Your task to perform on an android device: stop showing notifications on the lock screen Image 0: 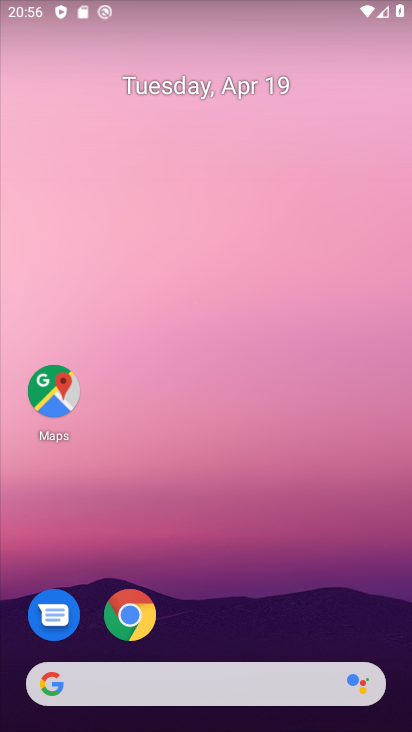
Step 0: drag from (249, 637) to (331, 334)
Your task to perform on an android device: stop showing notifications on the lock screen Image 1: 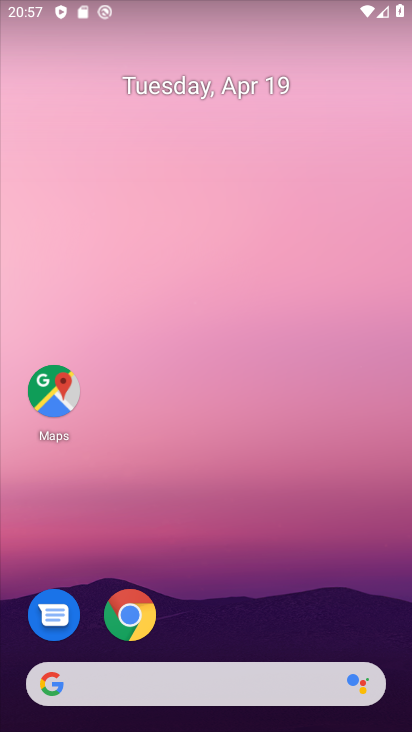
Step 1: drag from (216, 682) to (285, 409)
Your task to perform on an android device: stop showing notifications on the lock screen Image 2: 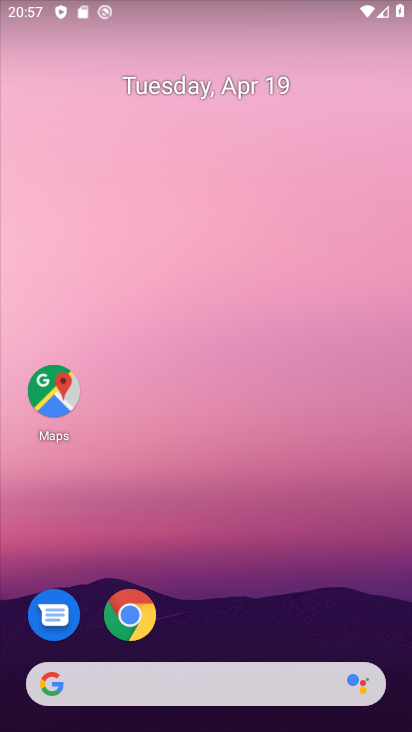
Step 2: drag from (193, 662) to (243, 293)
Your task to perform on an android device: stop showing notifications on the lock screen Image 3: 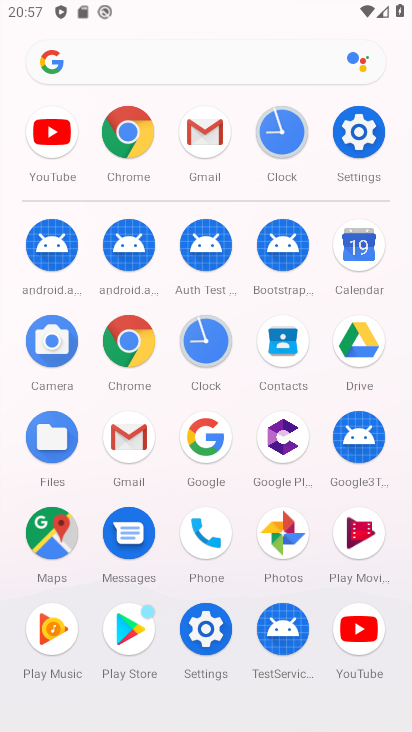
Step 3: click (361, 144)
Your task to perform on an android device: stop showing notifications on the lock screen Image 4: 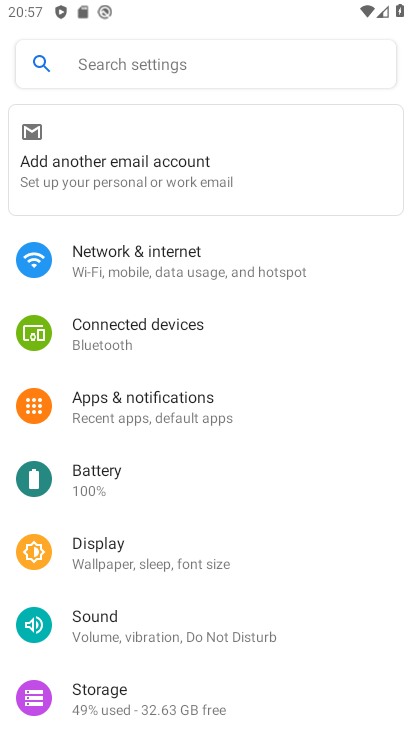
Step 4: click (125, 410)
Your task to perform on an android device: stop showing notifications on the lock screen Image 5: 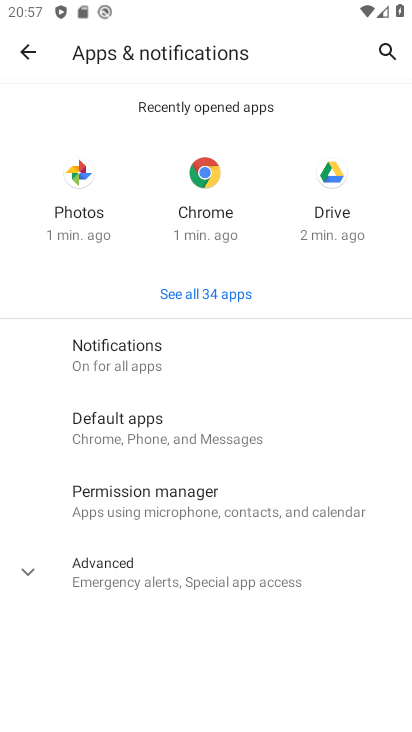
Step 5: click (144, 349)
Your task to perform on an android device: stop showing notifications on the lock screen Image 6: 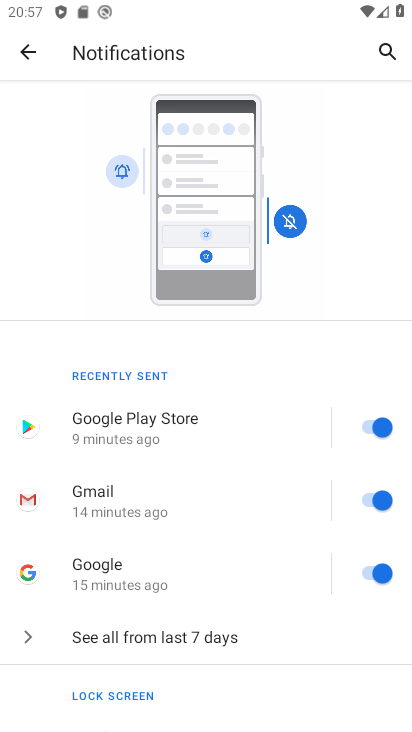
Step 6: drag from (207, 652) to (222, 276)
Your task to perform on an android device: stop showing notifications on the lock screen Image 7: 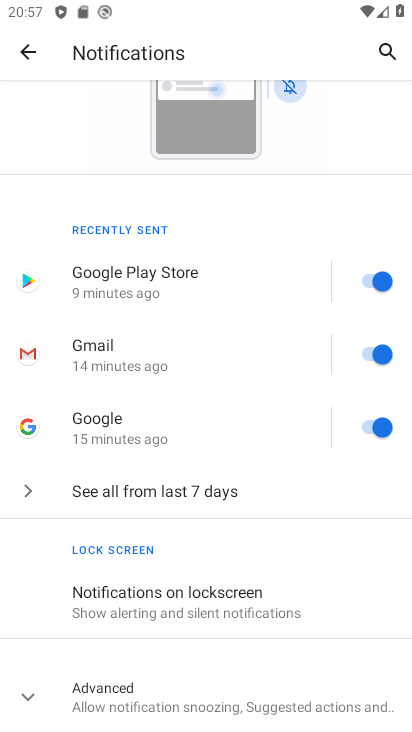
Step 7: click (167, 602)
Your task to perform on an android device: stop showing notifications on the lock screen Image 8: 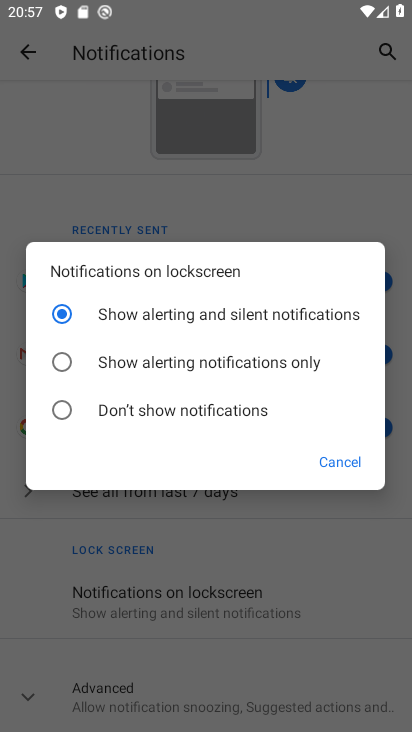
Step 8: click (76, 408)
Your task to perform on an android device: stop showing notifications on the lock screen Image 9: 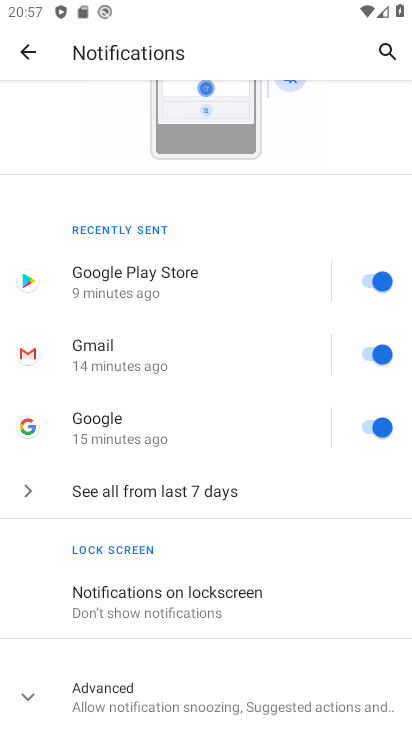
Step 9: task complete